Your task to perform on an android device: Search for pizza restaurants on Maps Image 0: 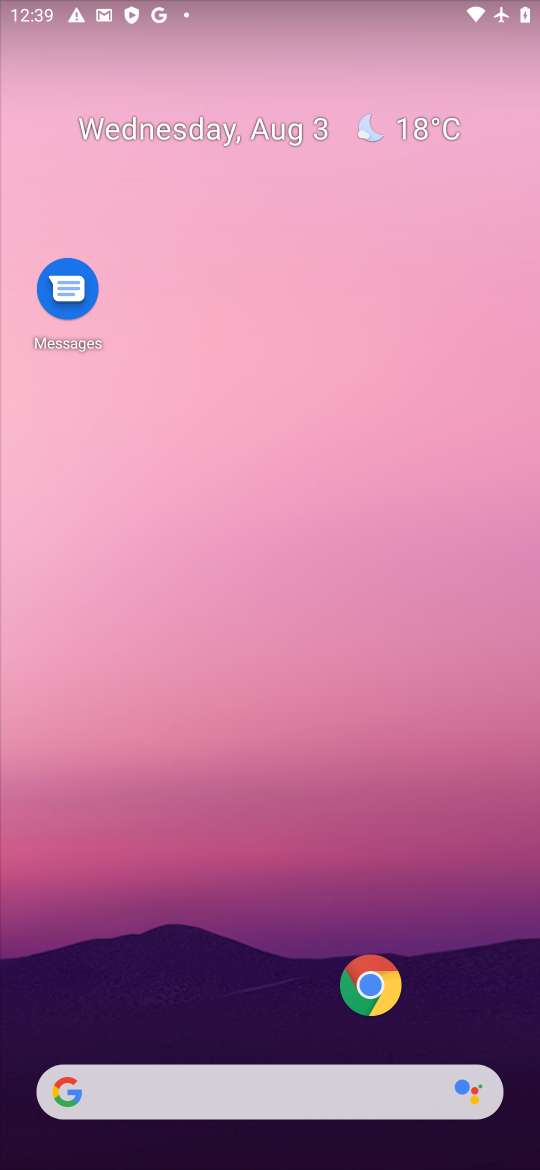
Step 0: drag from (313, 1021) to (263, 299)
Your task to perform on an android device: Search for pizza restaurants on Maps Image 1: 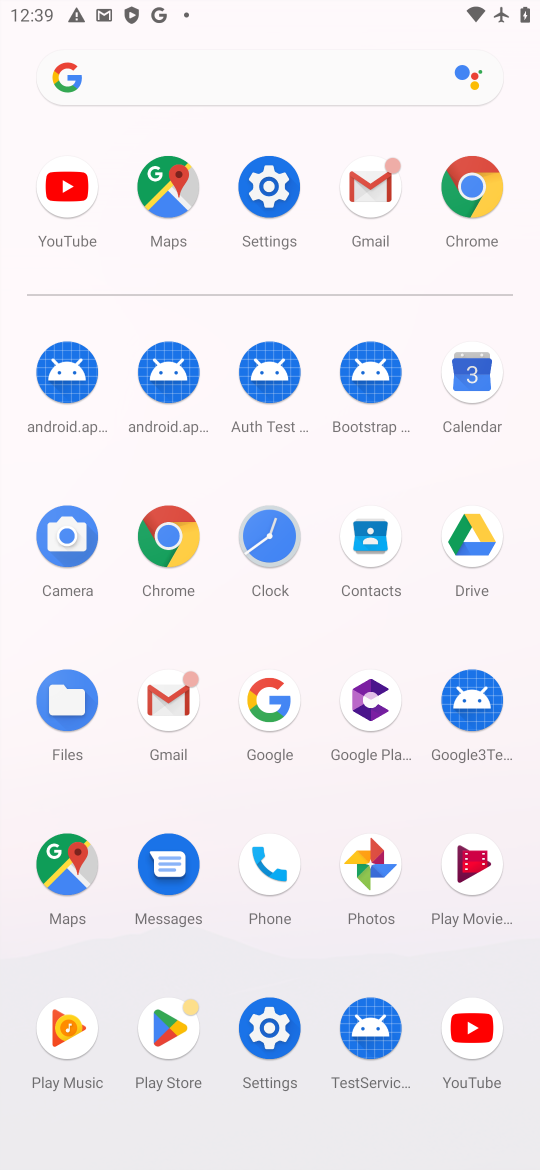
Step 1: click (86, 917)
Your task to perform on an android device: Search for pizza restaurants on Maps Image 2: 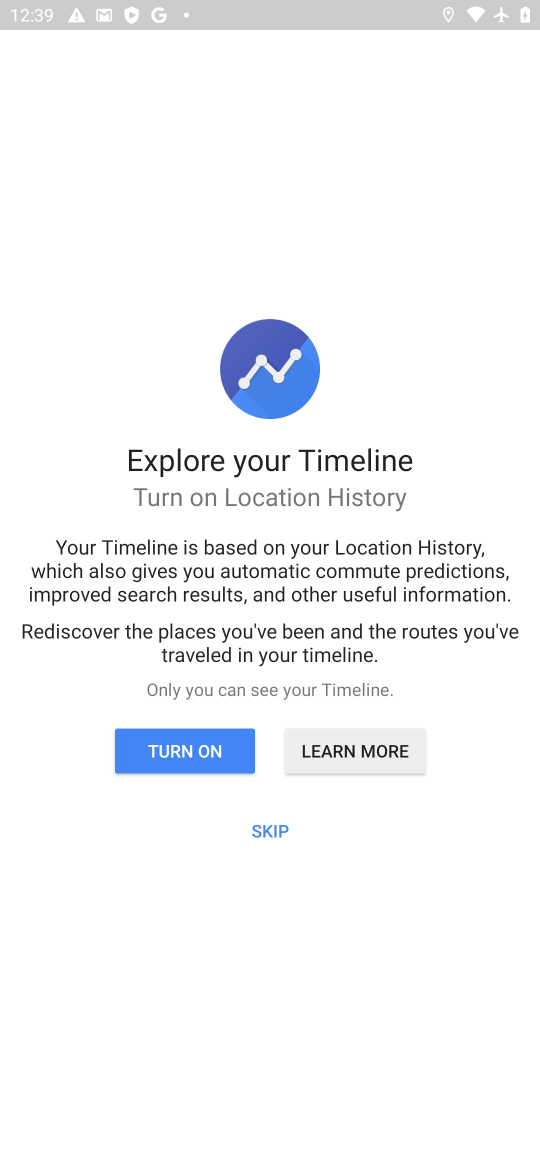
Step 2: press home button
Your task to perform on an android device: Search for pizza restaurants on Maps Image 3: 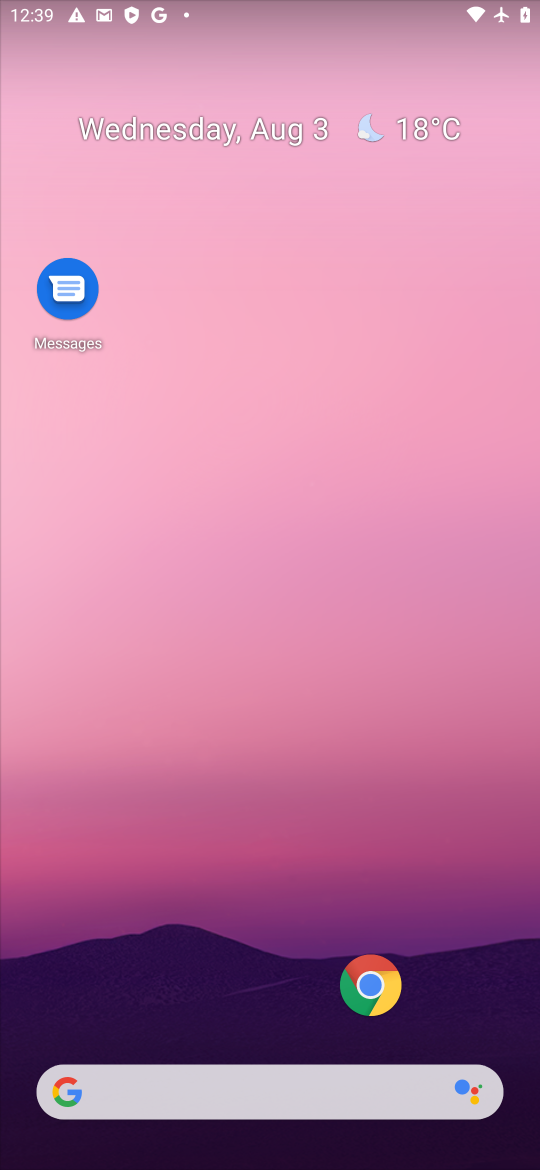
Step 3: drag from (234, 1009) to (280, 250)
Your task to perform on an android device: Search for pizza restaurants on Maps Image 4: 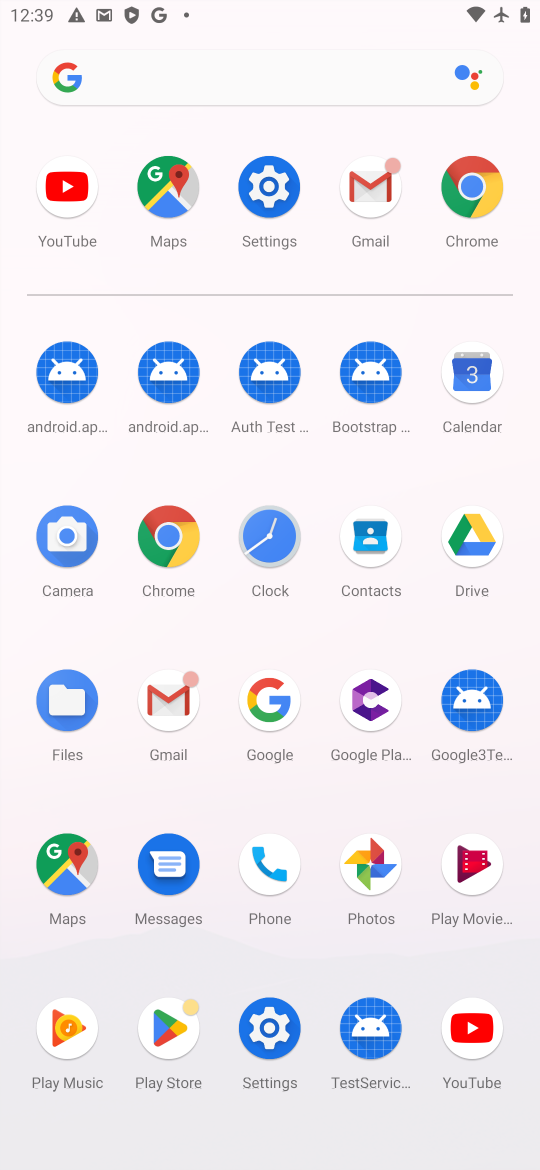
Step 4: click (56, 878)
Your task to perform on an android device: Search for pizza restaurants on Maps Image 5: 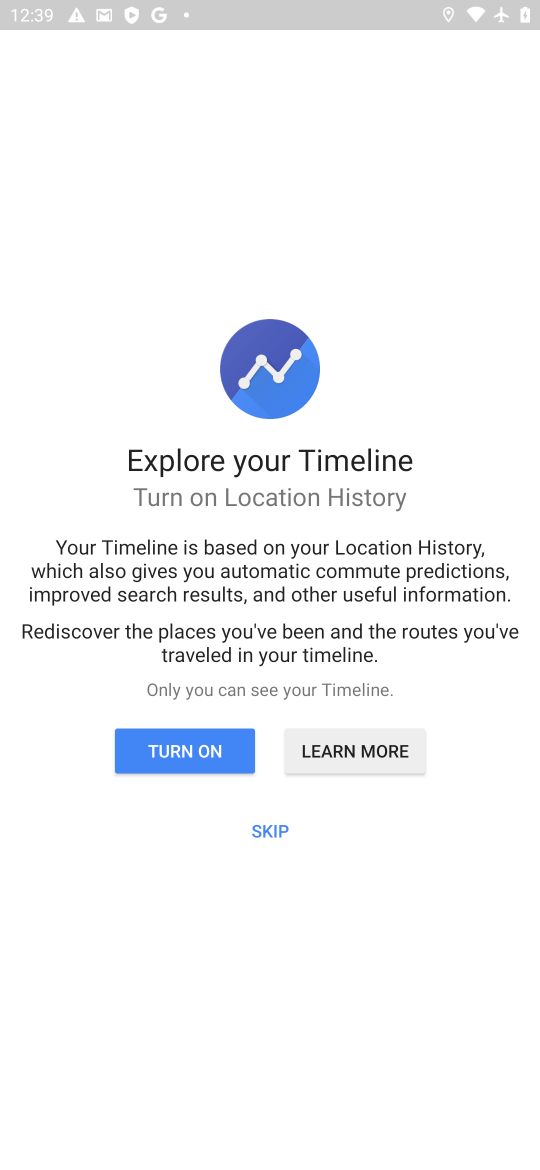
Step 5: click (273, 822)
Your task to perform on an android device: Search for pizza restaurants on Maps Image 6: 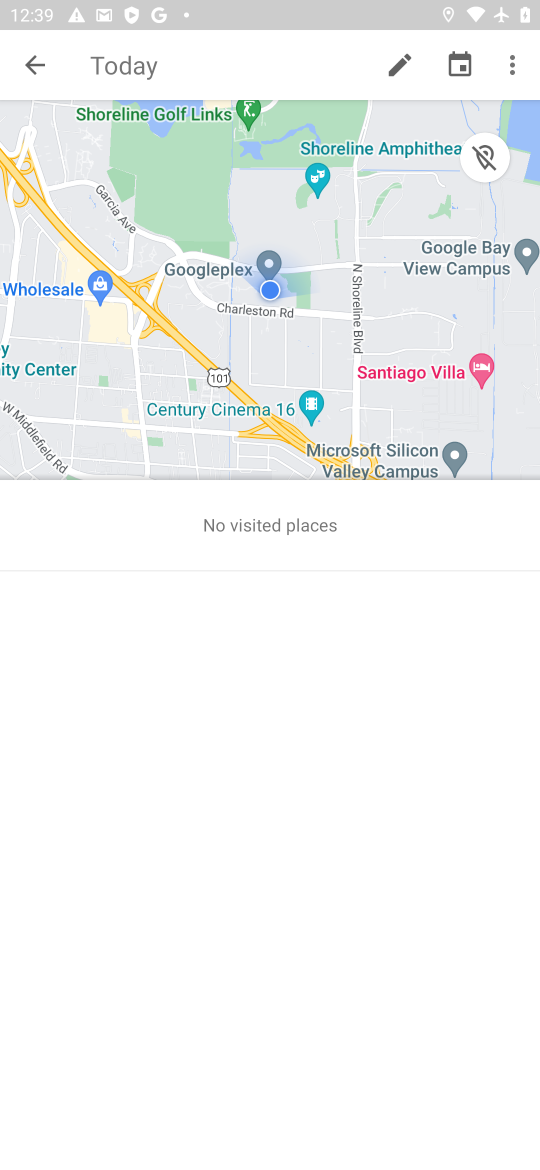
Step 6: click (43, 79)
Your task to perform on an android device: Search for pizza restaurants on Maps Image 7: 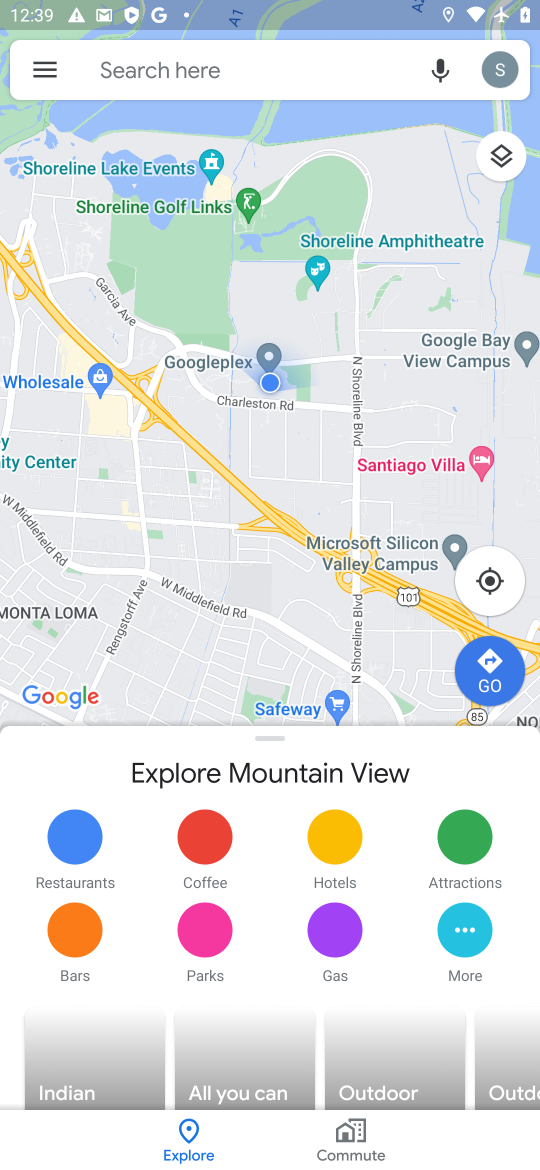
Step 7: click (188, 84)
Your task to perform on an android device: Search for pizza restaurants on Maps Image 8: 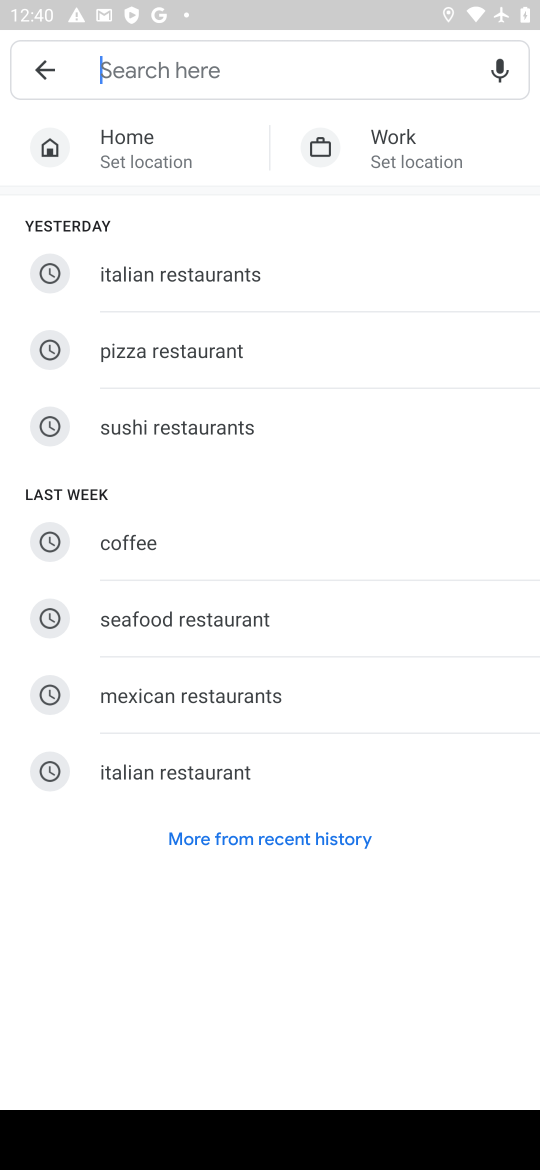
Step 8: click (319, 346)
Your task to perform on an android device: Search for pizza restaurants on Maps Image 9: 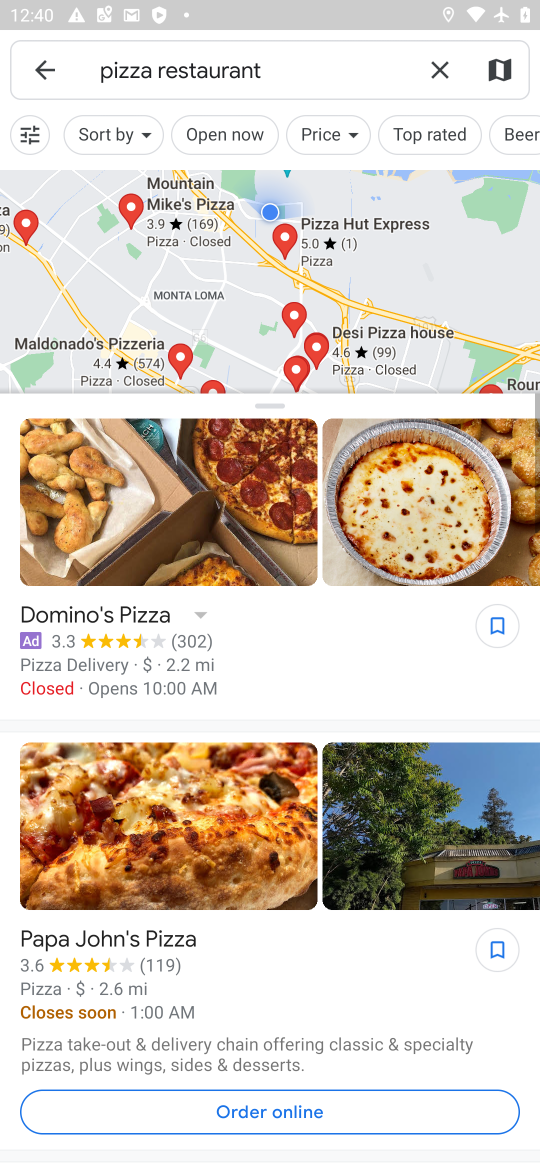
Step 9: task complete